Your task to perform on an android device: Open calendar and show me the second week of next month Image 0: 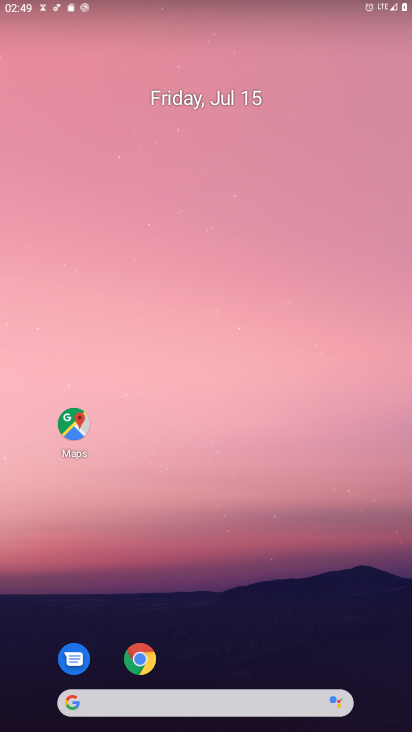
Step 0: drag from (221, 372) to (221, 125)
Your task to perform on an android device: Open calendar and show me the second week of next month Image 1: 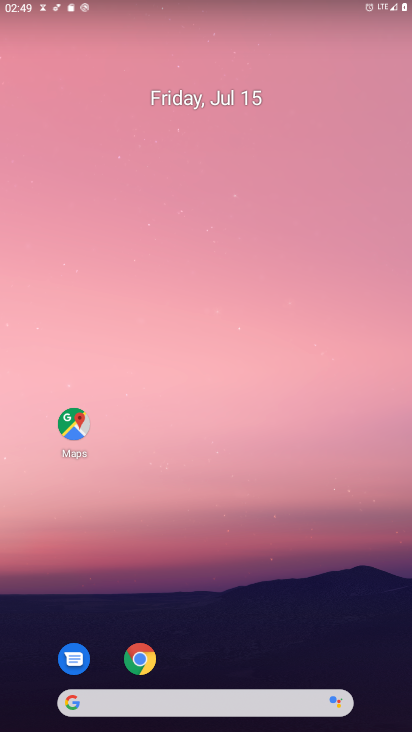
Step 1: drag from (245, 634) to (192, 172)
Your task to perform on an android device: Open calendar and show me the second week of next month Image 2: 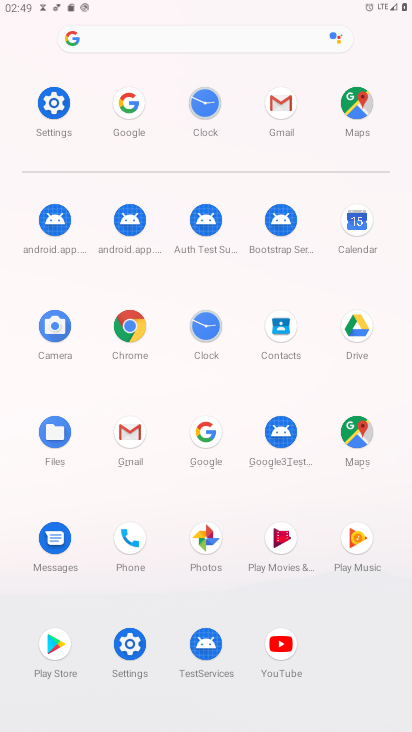
Step 2: click (51, 95)
Your task to perform on an android device: Open calendar and show me the second week of next month Image 3: 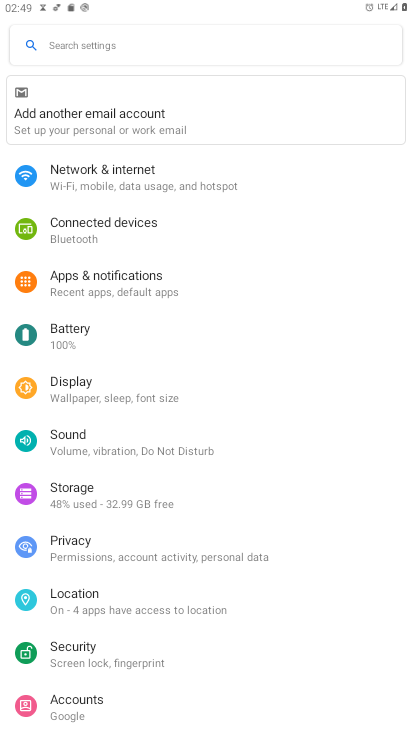
Step 3: press home button
Your task to perform on an android device: Open calendar and show me the second week of next month Image 4: 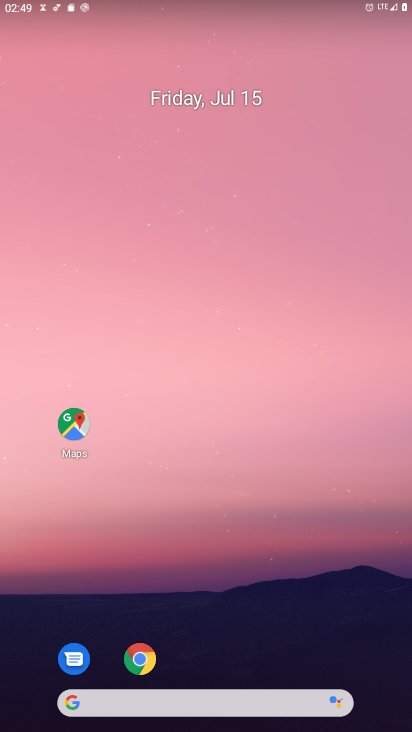
Step 4: drag from (183, 644) to (259, 256)
Your task to perform on an android device: Open calendar and show me the second week of next month Image 5: 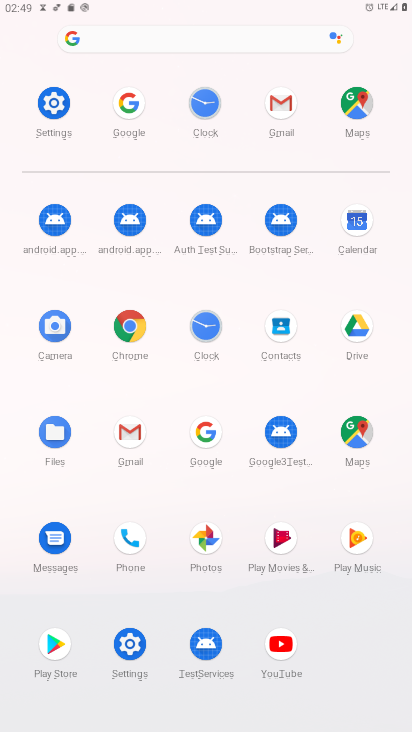
Step 5: click (373, 202)
Your task to perform on an android device: Open calendar and show me the second week of next month Image 6: 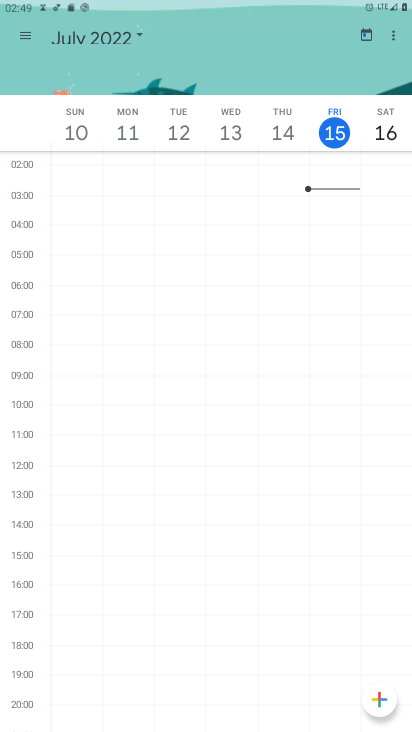
Step 6: drag from (253, 141) to (113, 147)
Your task to perform on an android device: Open calendar and show me the second week of next month Image 7: 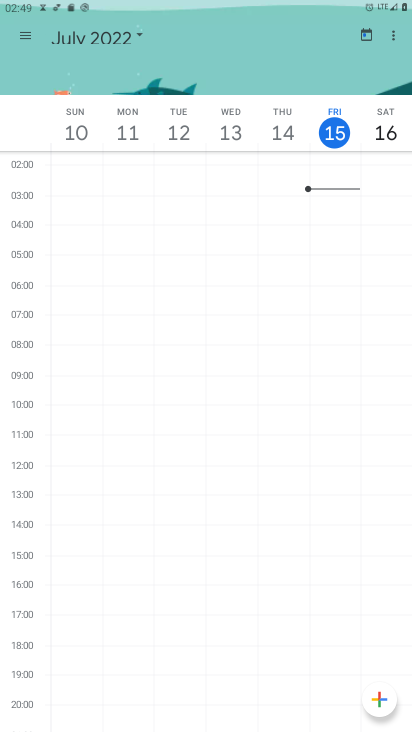
Step 7: click (25, 33)
Your task to perform on an android device: Open calendar and show me the second week of next month Image 8: 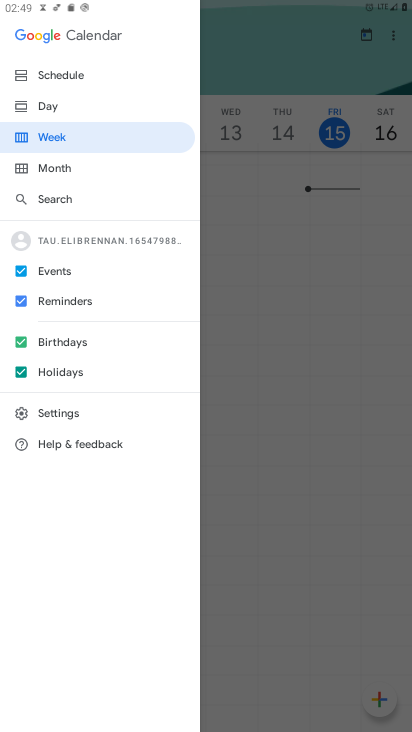
Step 8: click (41, 169)
Your task to perform on an android device: Open calendar and show me the second week of next month Image 9: 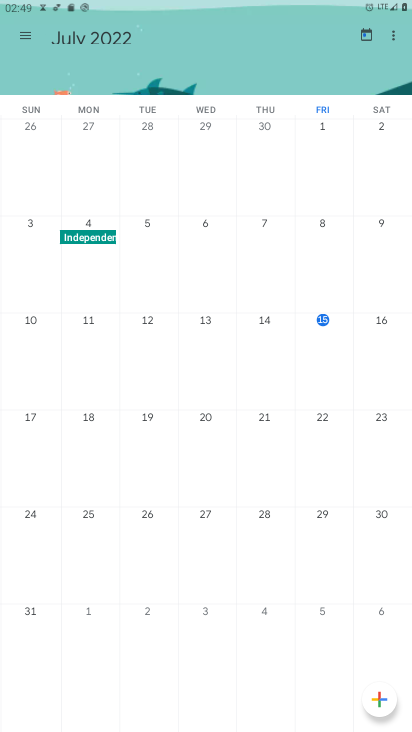
Step 9: drag from (384, 493) to (18, 309)
Your task to perform on an android device: Open calendar and show me the second week of next month Image 10: 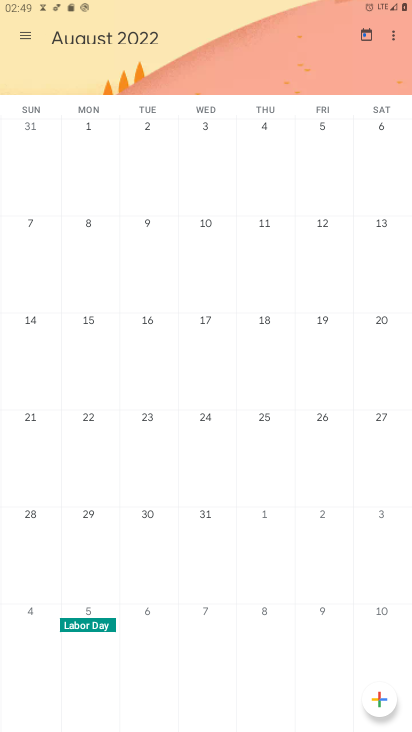
Step 10: click (48, 332)
Your task to perform on an android device: Open calendar and show me the second week of next month Image 11: 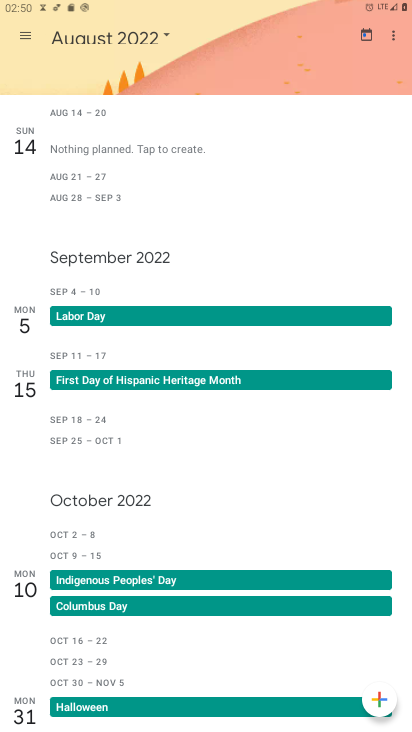
Step 11: task complete